Your task to perform on an android device: find which apps use the phone's location Image 0: 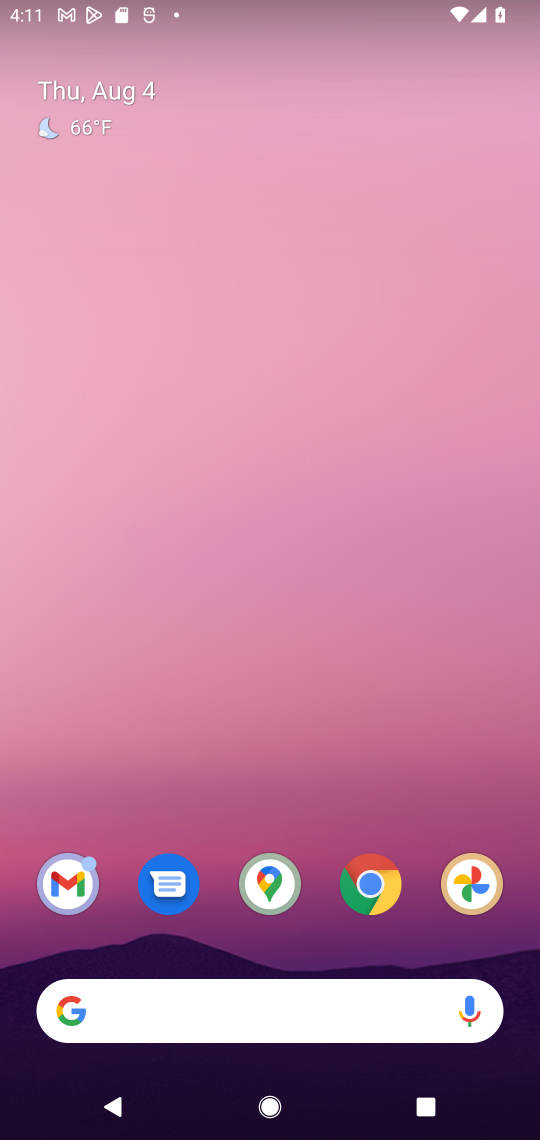
Step 0: drag from (327, 948) to (313, 275)
Your task to perform on an android device: find which apps use the phone's location Image 1: 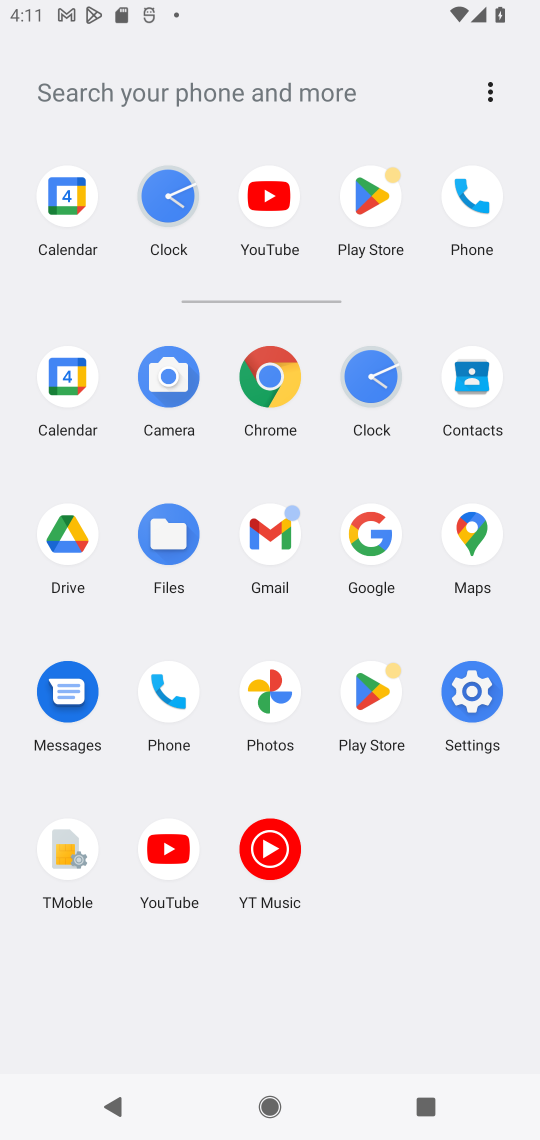
Step 1: click (473, 723)
Your task to perform on an android device: find which apps use the phone's location Image 2: 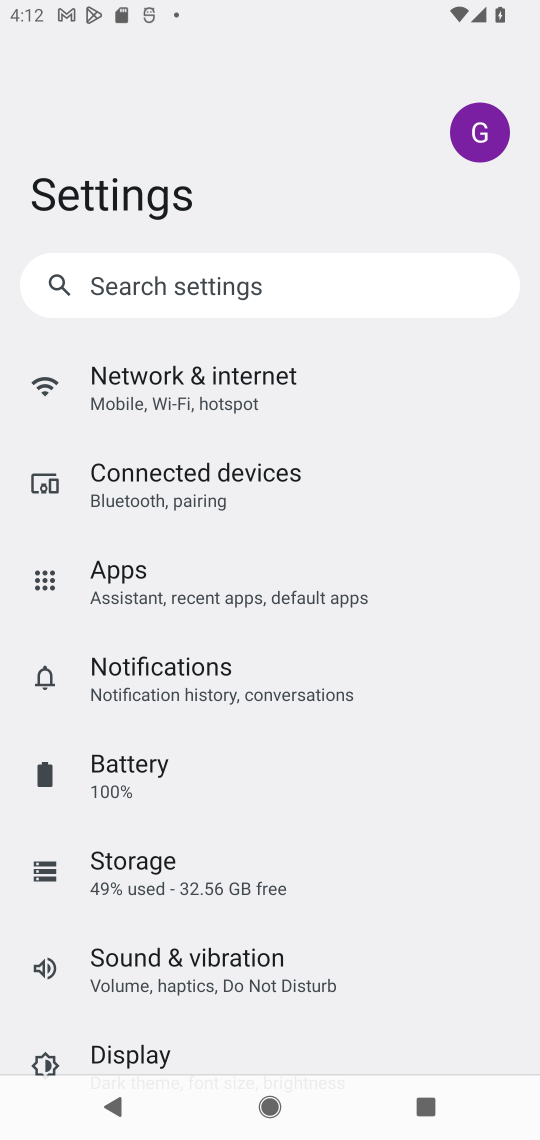
Step 2: drag from (228, 979) to (249, 575)
Your task to perform on an android device: find which apps use the phone's location Image 3: 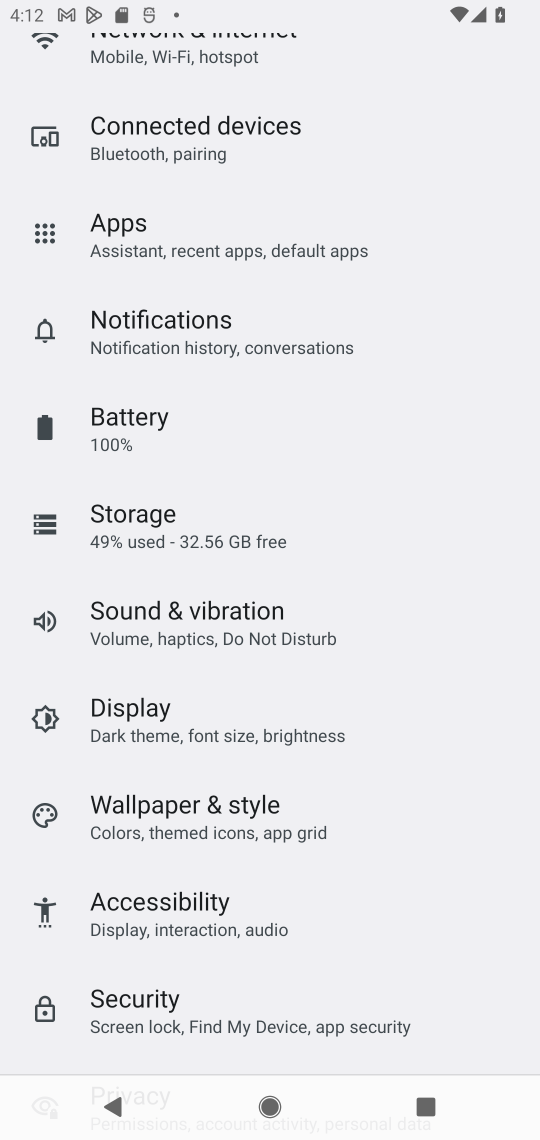
Step 3: drag from (222, 937) to (184, 470)
Your task to perform on an android device: find which apps use the phone's location Image 4: 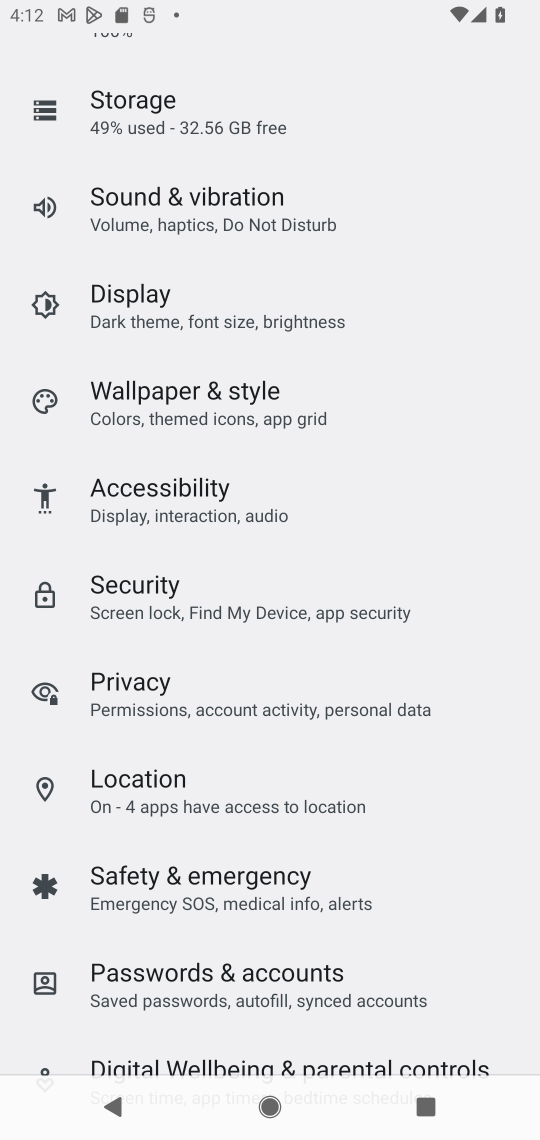
Step 4: click (208, 784)
Your task to perform on an android device: find which apps use the phone's location Image 5: 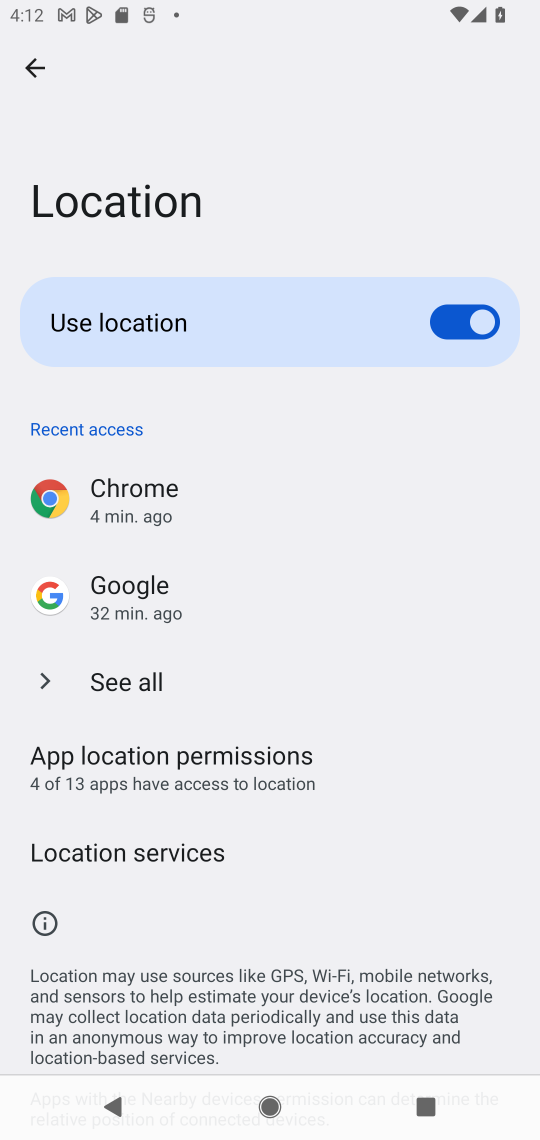
Step 5: task complete